Your task to perform on an android device: refresh tabs in the chrome app Image 0: 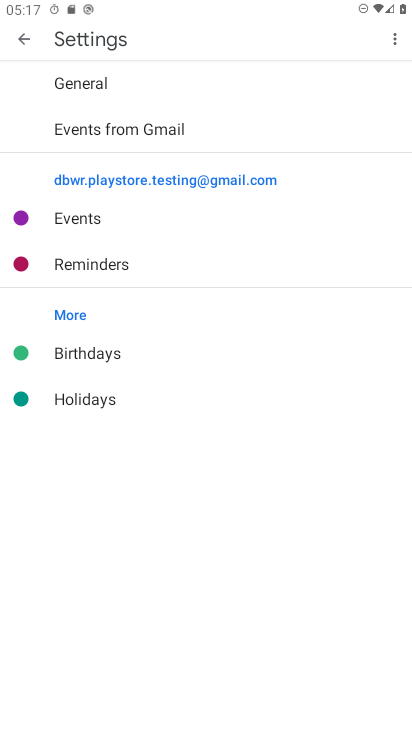
Step 0: press home button
Your task to perform on an android device: refresh tabs in the chrome app Image 1: 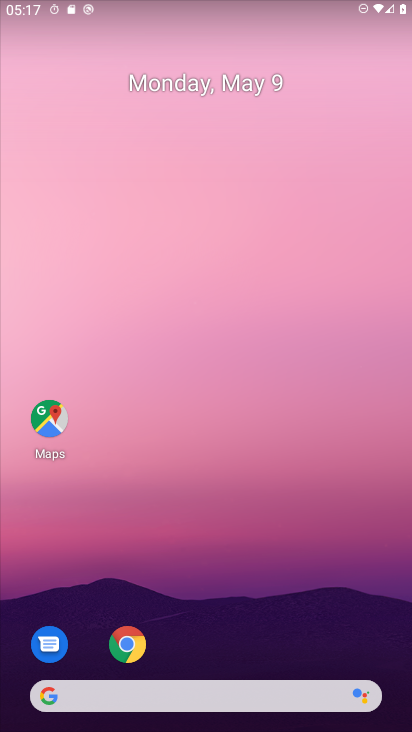
Step 1: click (126, 642)
Your task to perform on an android device: refresh tabs in the chrome app Image 2: 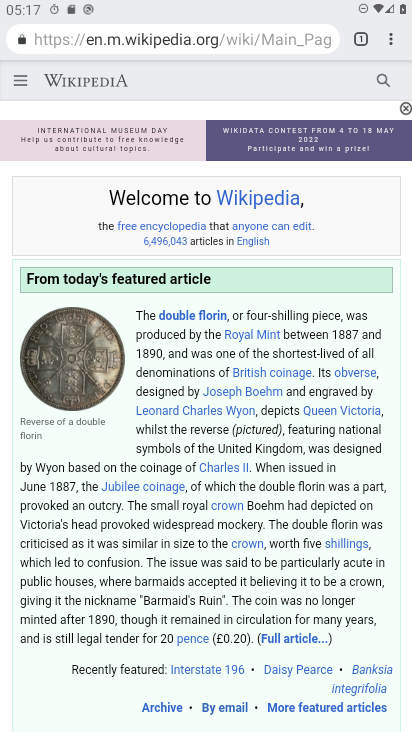
Step 2: click (390, 37)
Your task to perform on an android device: refresh tabs in the chrome app Image 3: 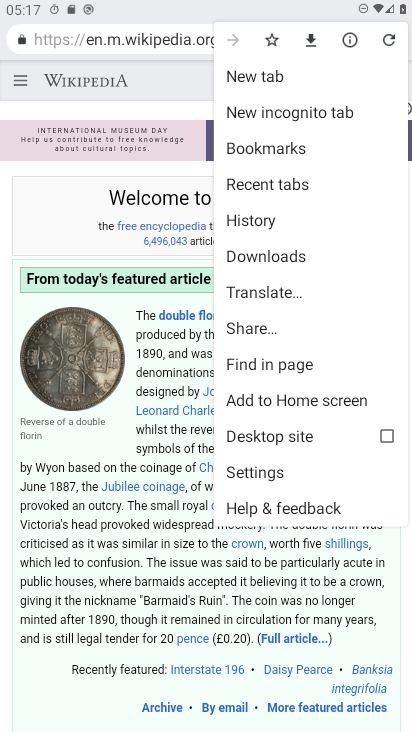
Step 3: click (390, 37)
Your task to perform on an android device: refresh tabs in the chrome app Image 4: 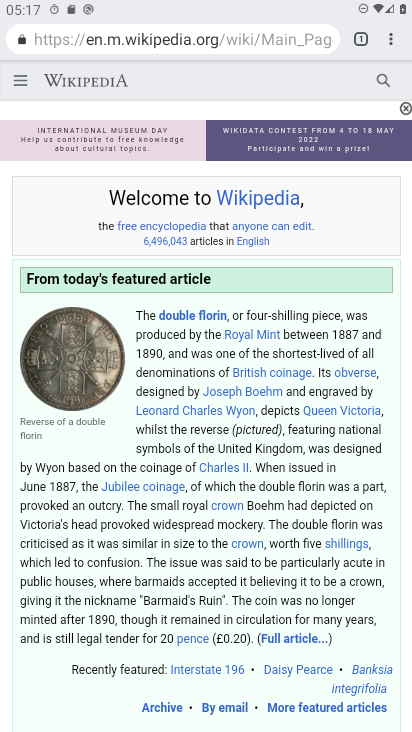
Step 4: task complete